Your task to perform on an android device: toggle airplane mode Image 0: 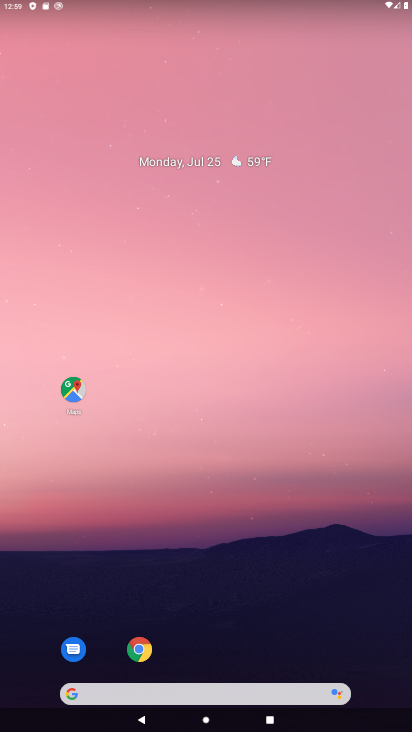
Step 0: drag from (201, 685) to (211, 284)
Your task to perform on an android device: toggle airplane mode Image 1: 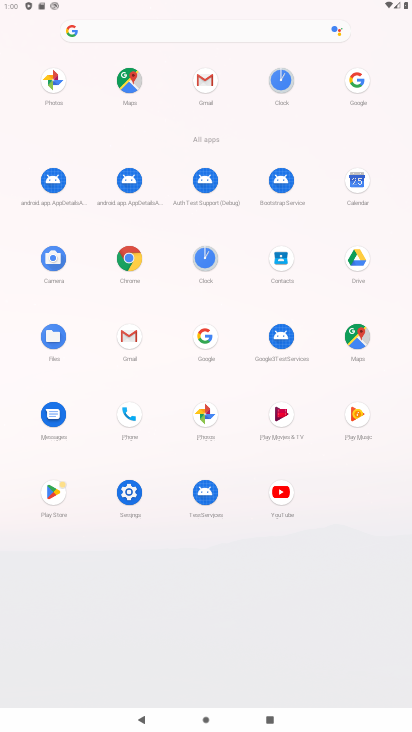
Step 1: click (129, 494)
Your task to perform on an android device: toggle airplane mode Image 2: 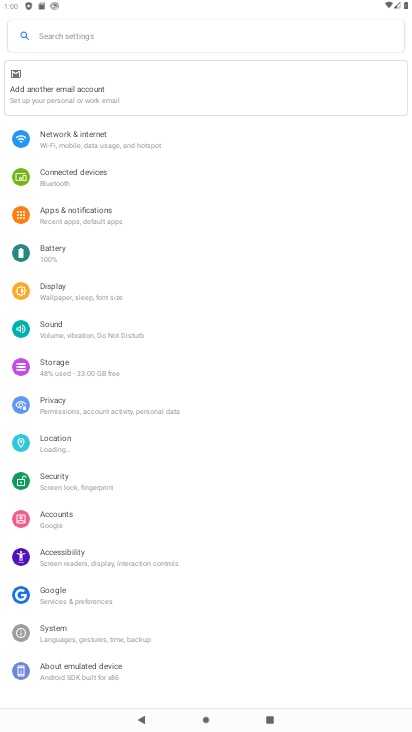
Step 2: click (129, 140)
Your task to perform on an android device: toggle airplane mode Image 3: 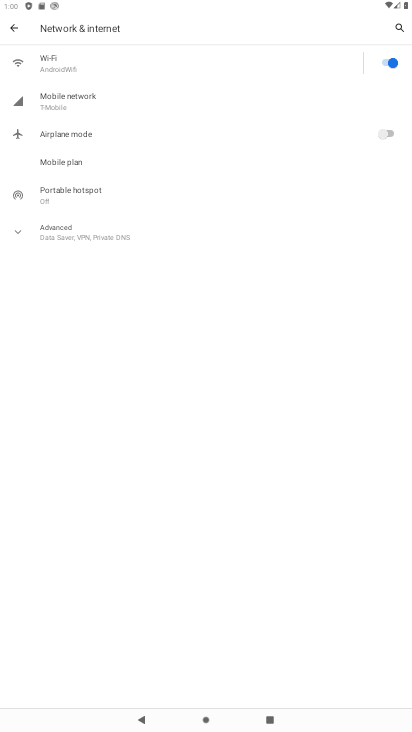
Step 3: click (387, 133)
Your task to perform on an android device: toggle airplane mode Image 4: 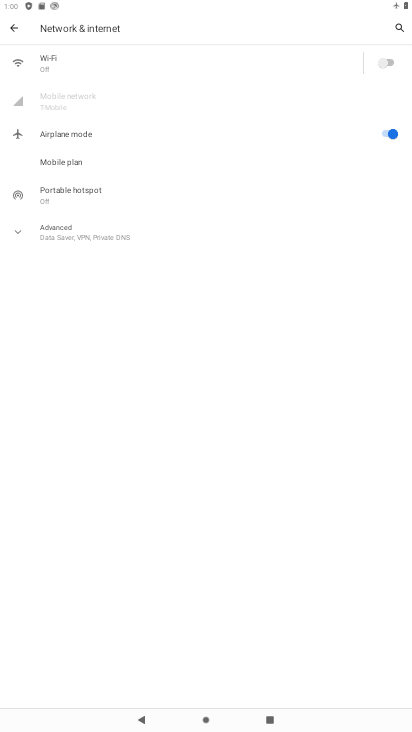
Step 4: task complete